Your task to perform on an android device: What's the weather going to be tomorrow? Image 0: 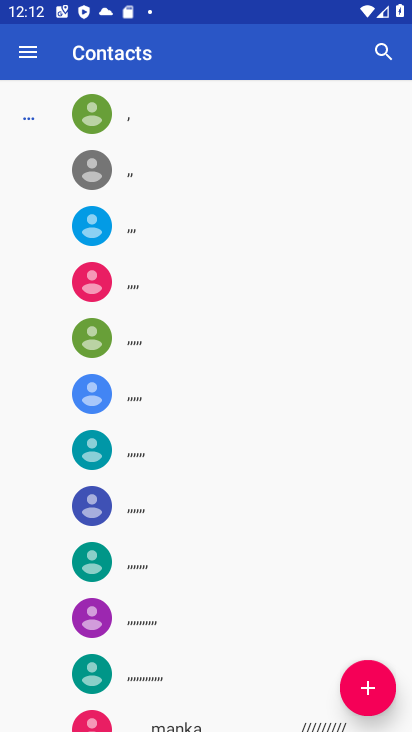
Step 0: task complete